Your task to perform on an android device: Do I have any events tomorrow? Image 0: 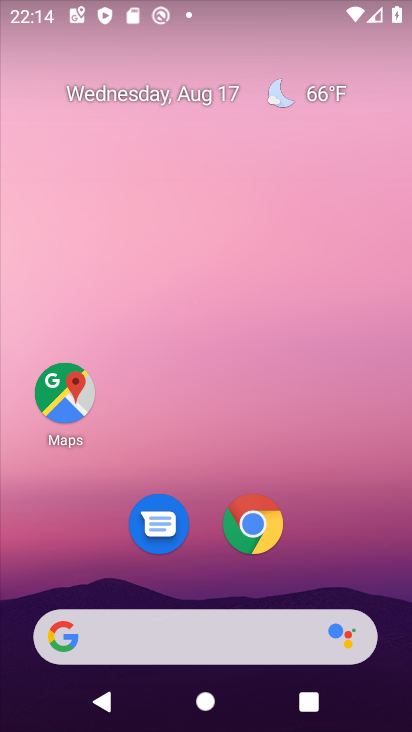
Step 0: drag from (329, 527) to (317, 1)
Your task to perform on an android device: Do I have any events tomorrow? Image 1: 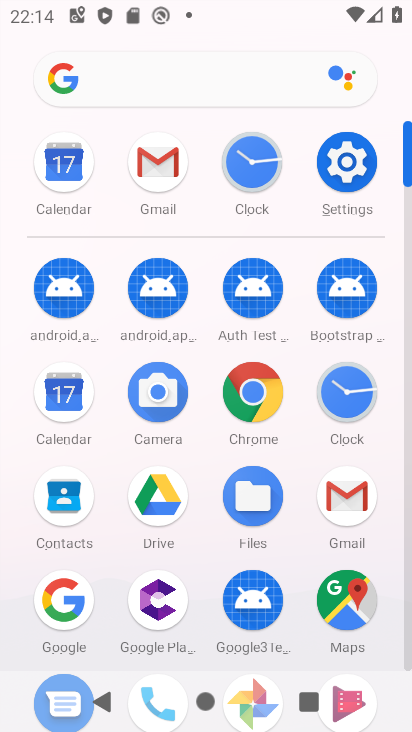
Step 1: click (69, 165)
Your task to perform on an android device: Do I have any events tomorrow? Image 2: 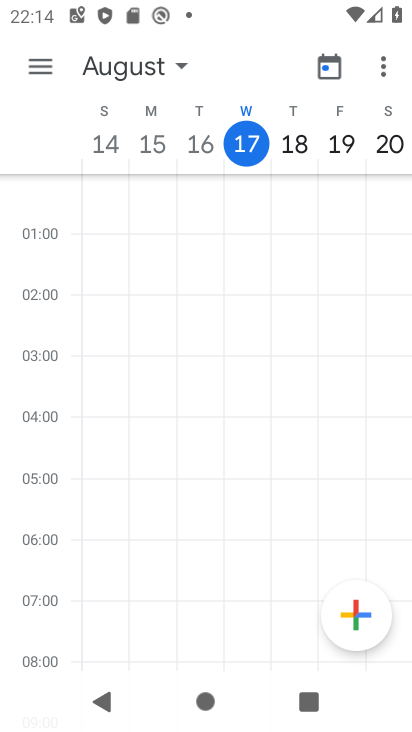
Step 2: task complete